Your task to perform on an android device: Open privacy settings Image 0: 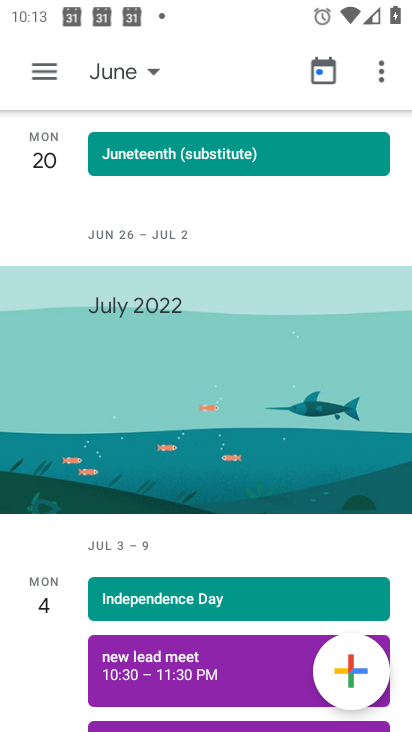
Step 0: press home button
Your task to perform on an android device: Open privacy settings Image 1: 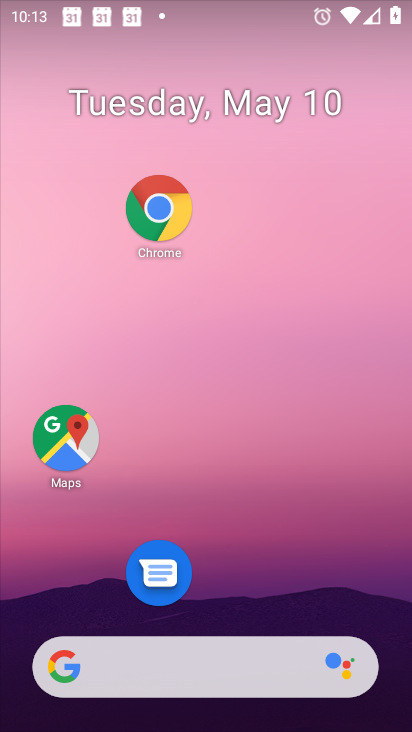
Step 1: drag from (288, 637) to (302, 258)
Your task to perform on an android device: Open privacy settings Image 2: 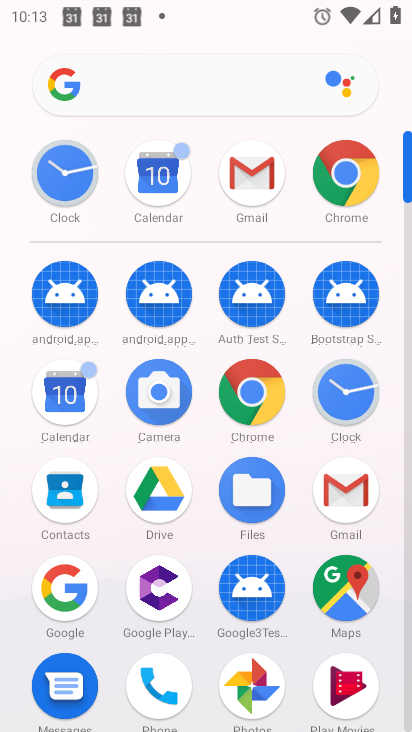
Step 2: drag from (198, 513) to (207, 364)
Your task to perform on an android device: Open privacy settings Image 3: 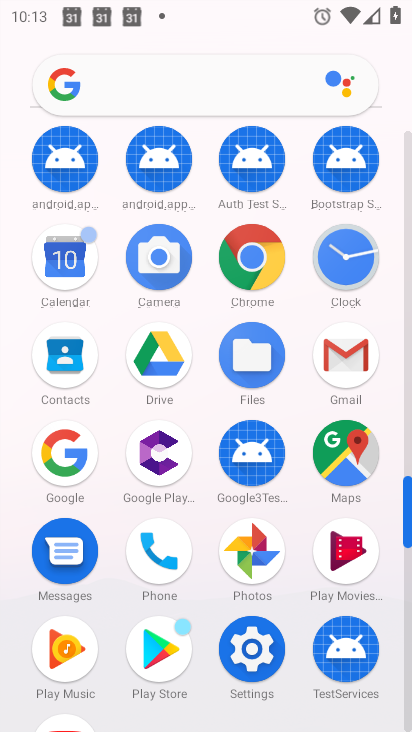
Step 3: click (252, 652)
Your task to perform on an android device: Open privacy settings Image 4: 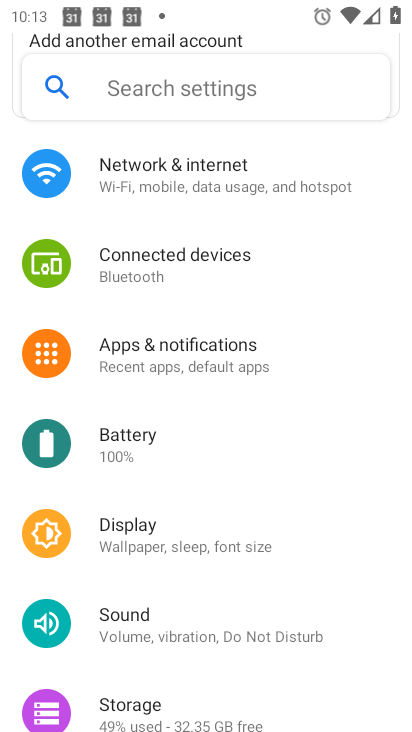
Step 4: drag from (174, 636) to (204, 523)
Your task to perform on an android device: Open privacy settings Image 5: 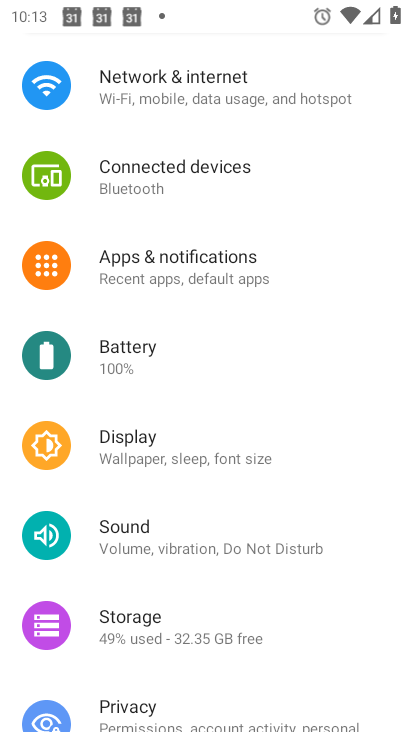
Step 5: click (119, 703)
Your task to perform on an android device: Open privacy settings Image 6: 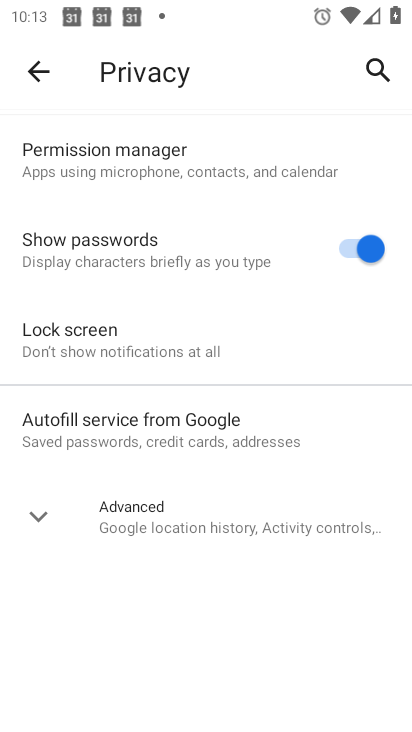
Step 6: task complete